Your task to perform on an android device: turn on the 24-hour format for clock Image 0: 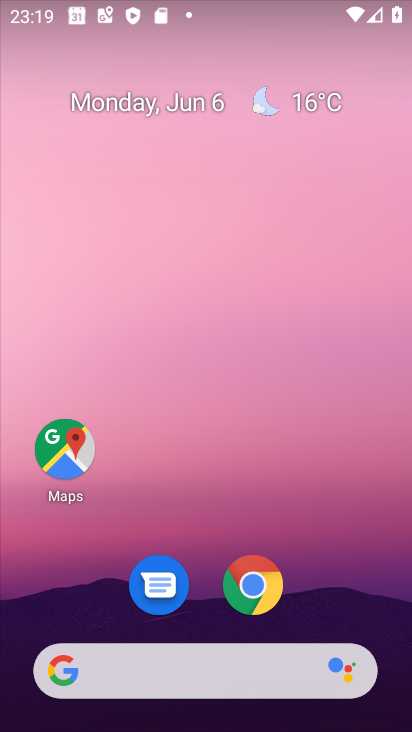
Step 0: drag from (250, 486) to (197, 6)
Your task to perform on an android device: turn on the 24-hour format for clock Image 1: 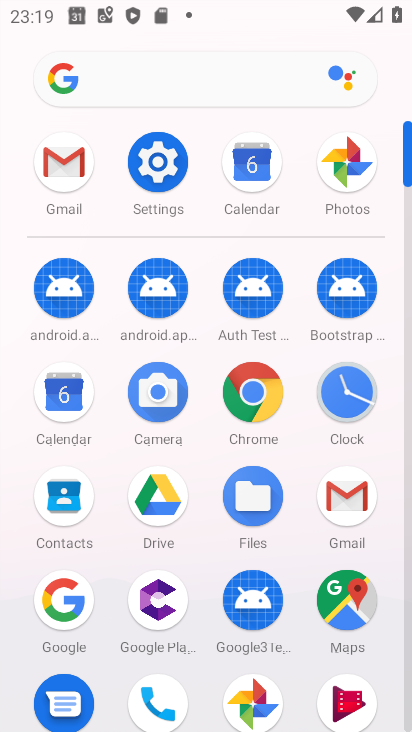
Step 1: click (345, 382)
Your task to perform on an android device: turn on the 24-hour format for clock Image 2: 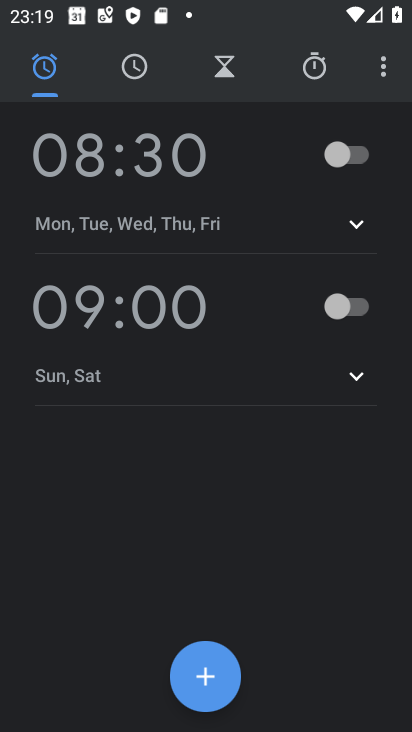
Step 2: click (378, 72)
Your task to perform on an android device: turn on the 24-hour format for clock Image 3: 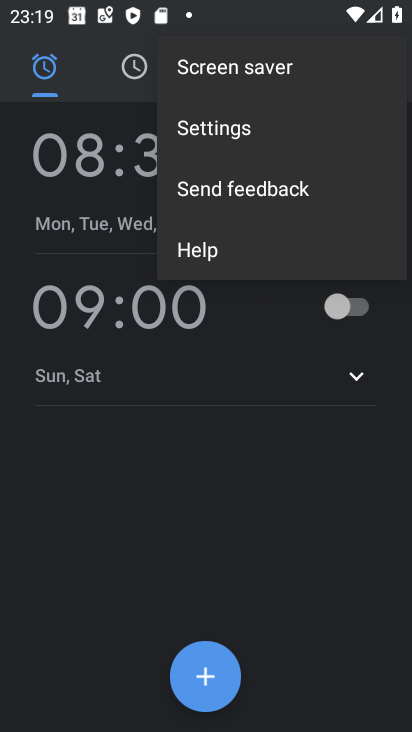
Step 3: click (323, 134)
Your task to perform on an android device: turn on the 24-hour format for clock Image 4: 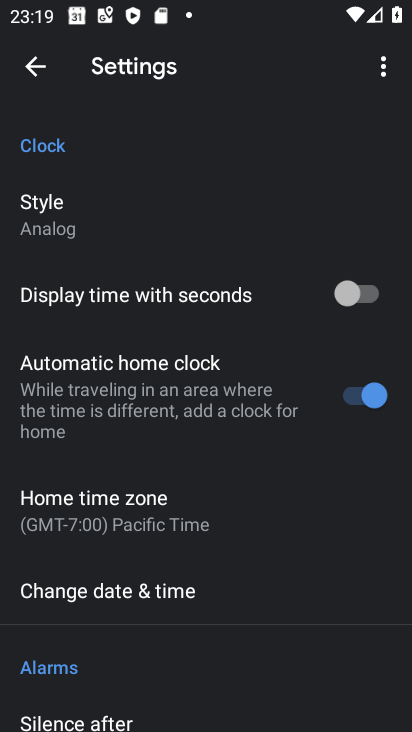
Step 4: click (248, 589)
Your task to perform on an android device: turn on the 24-hour format for clock Image 5: 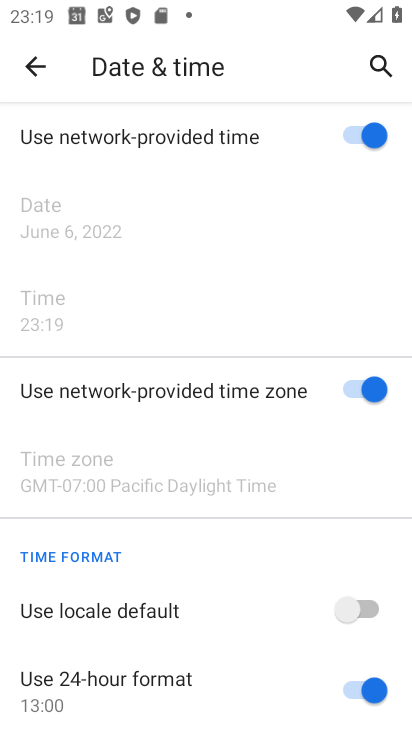
Step 5: task complete